Your task to perform on an android device: What's the news in Paraguay? Image 0: 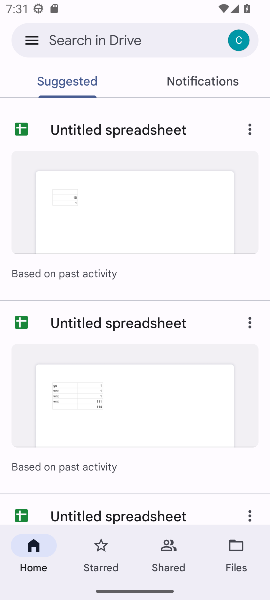
Step 0: press home button
Your task to perform on an android device: What's the news in Paraguay? Image 1: 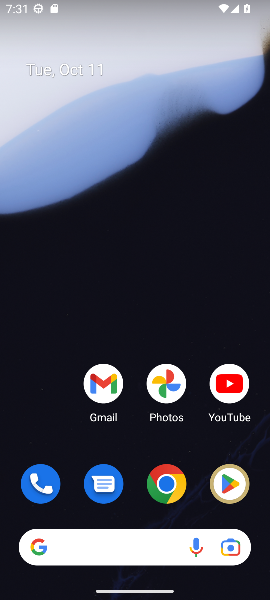
Step 1: drag from (133, 439) to (238, 33)
Your task to perform on an android device: What's the news in Paraguay? Image 2: 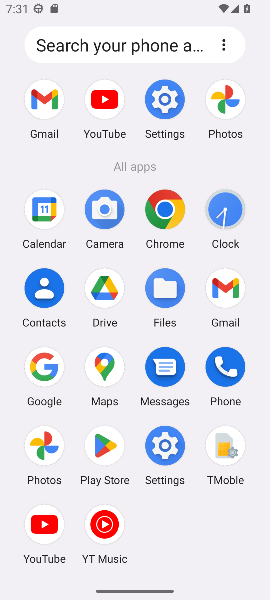
Step 2: click (167, 208)
Your task to perform on an android device: What's the news in Paraguay? Image 3: 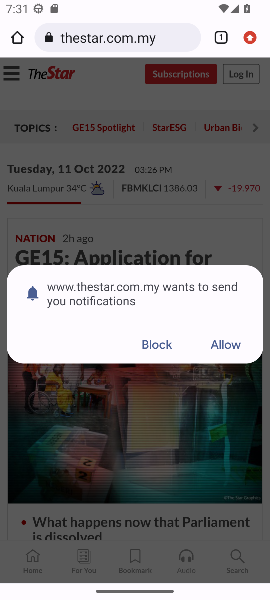
Step 3: click (106, 42)
Your task to perform on an android device: What's the news in Paraguay? Image 4: 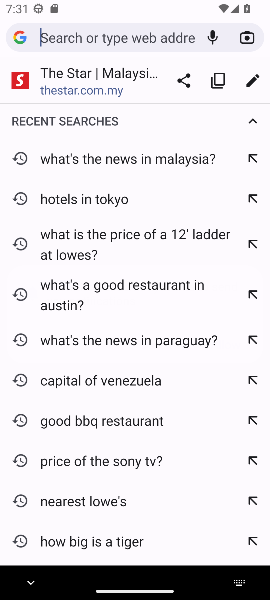
Step 4: type "What's the news in Paraguay?"
Your task to perform on an android device: What's the news in Paraguay? Image 5: 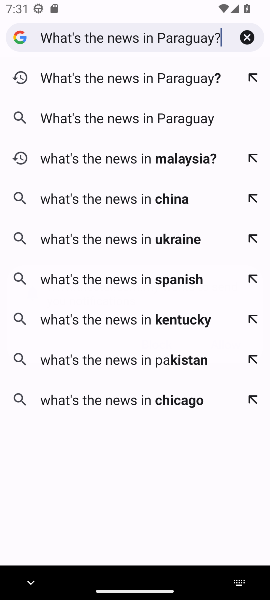
Step 5: press enter
Your task to perform on an android device: What's the news in Paraguay? Image 6: 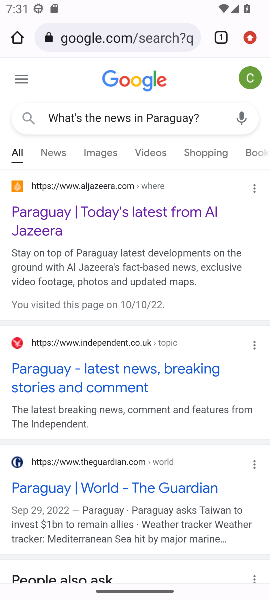
Step 6: click (97, 210)
Your task to perform on an android device: What's the news in Paraguay? Image 7: 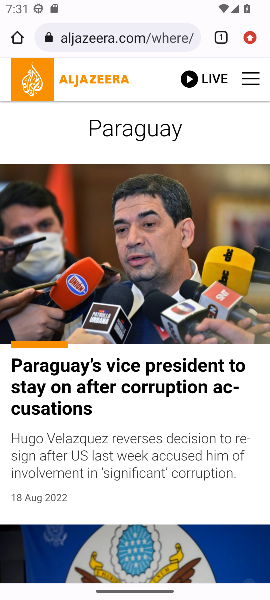
Step 7: task complete